Your task to perform on an android device: Do I have any events today? Image 0: 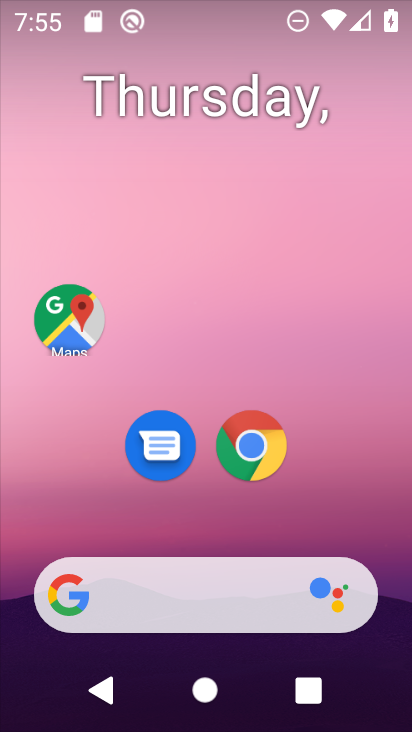
Step 0: drag from (329, 522) to (275, 0)
Your task to perform on an android device: Do I have any events today? Image 1: 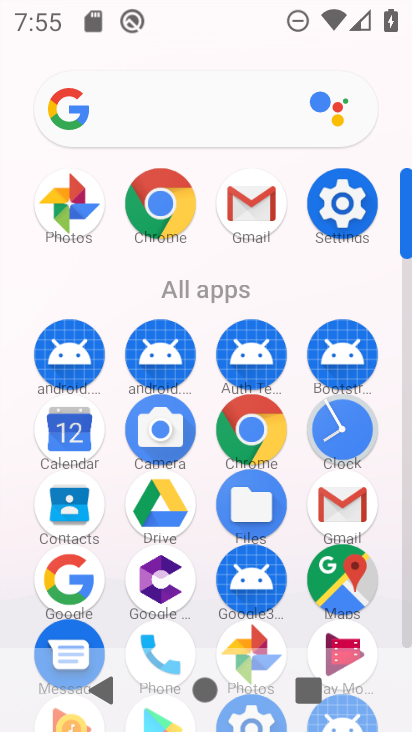
Step 1: click (67, 424)
Your task to perform on an android device: Do I have any events today? Image 2: 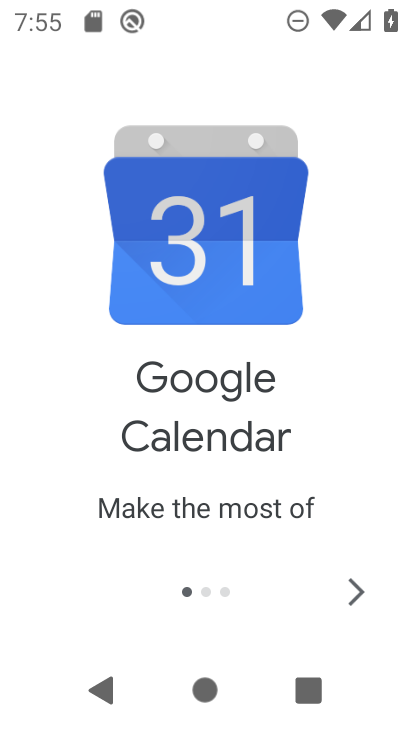
Step 2: click (345, 608)
Your task to perform on an android device: Do I have any events today? Image 3: 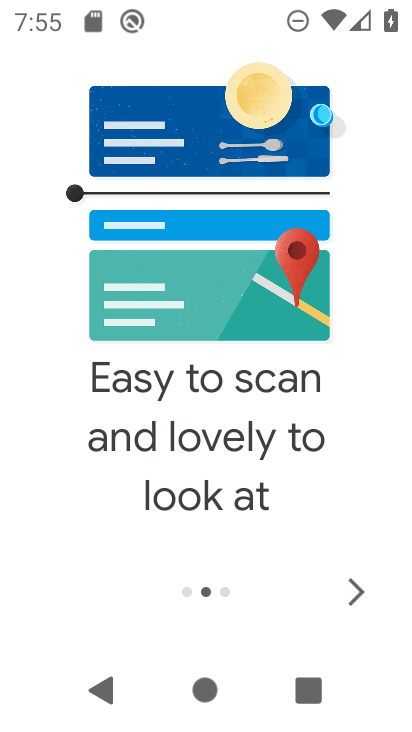
Step 3: click (345, 608)
Your task to perform on an android device: Do I have any events today? Image 4: 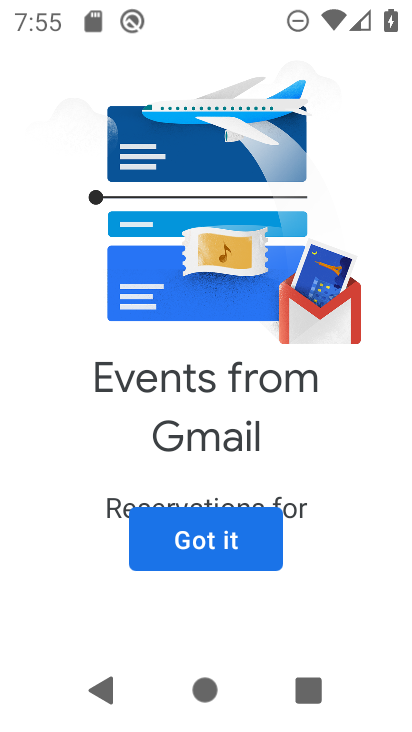
Step 4: click (214, 559)
Your task to perform on an android device: Do I have any events today? Image 5: 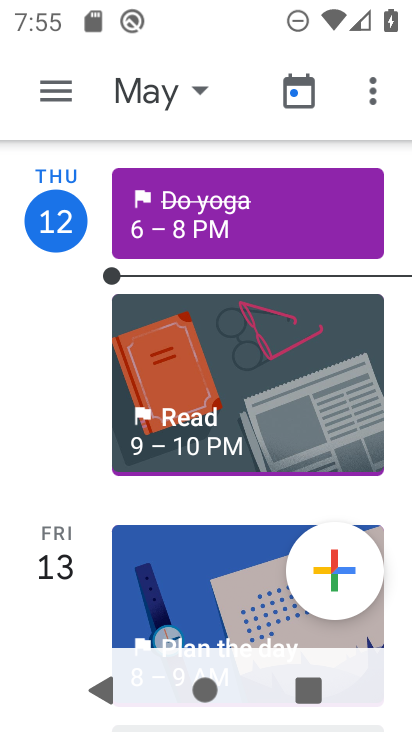
Step 5: click (187, 212)
Your task to perform on an android device: Do I have any events today? Image 6: 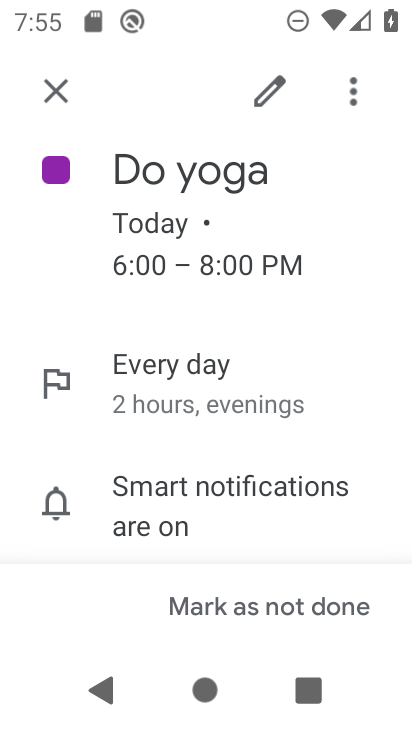
Step 6: task complete